Your task to perform on an android device: Turn on the flashlight Image 0: 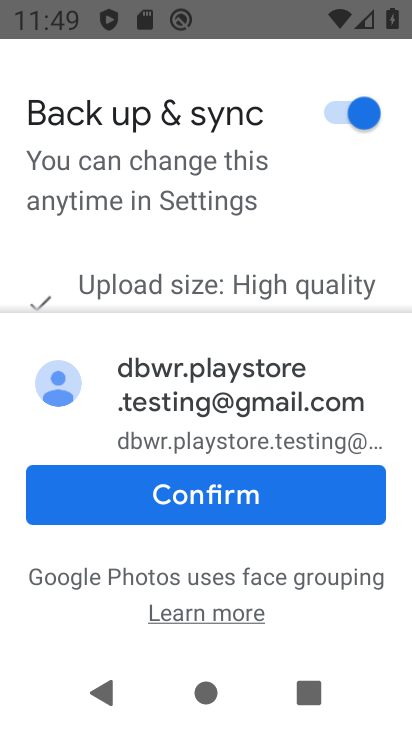
Step 0: press home button
Your task to perform on an android device: Turn on the flashlight Image 1: 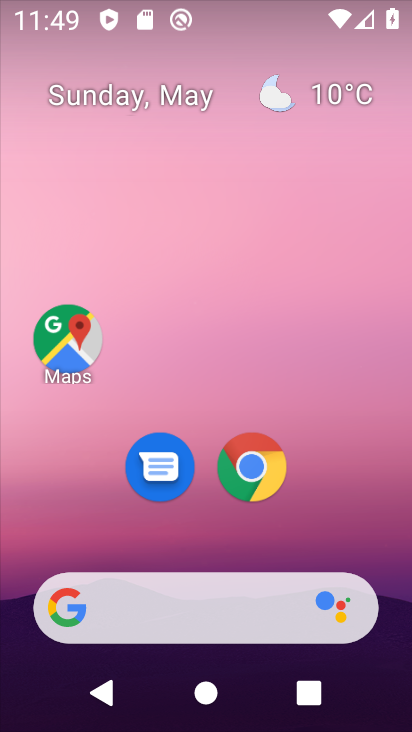
Step 1: drag from (357, 500) to (363, 141)
Your task to perform on an android device: Turn on the flashlight Image 2: 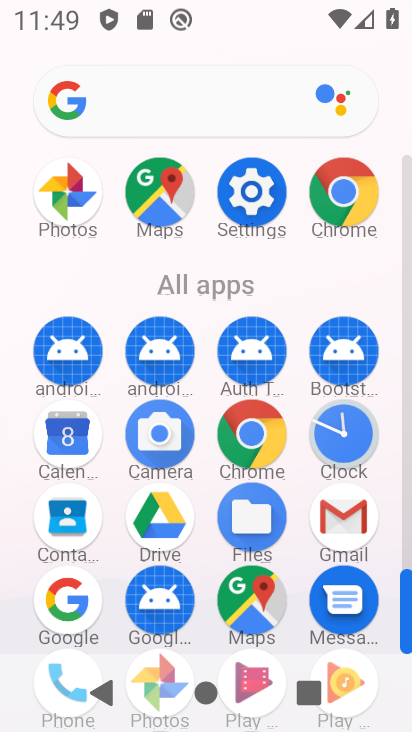
Step 2: click (259, 180)
Your task to perform on an android device: Turn on the flashlight Image 3: 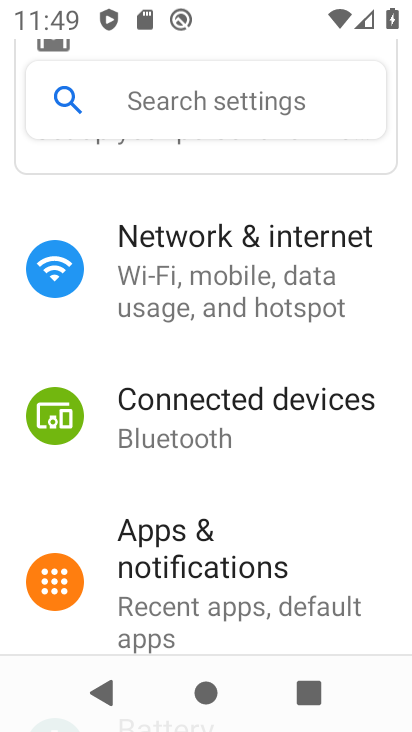
Step 3: click (234, 126)
Your task to perform on an android device: Turn on the flashlight Image 4: 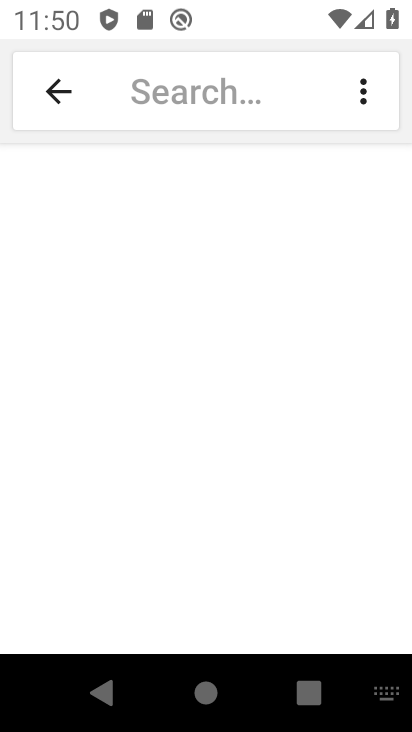
Step 4: click (172, 97)
Your task to perform on an android device: Turn on the flashlight Image 5: 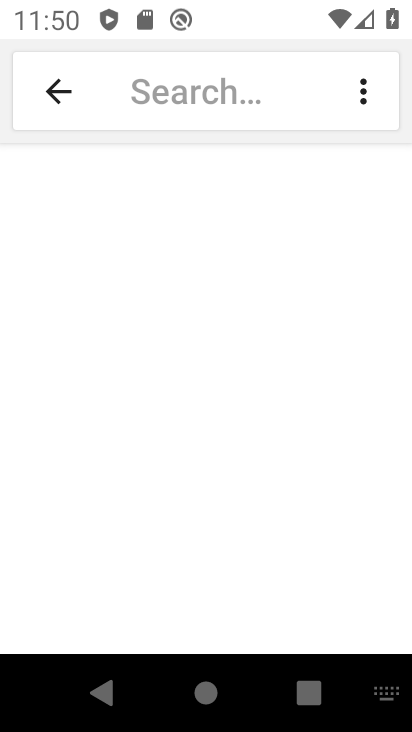
Step 5: type "flashlight"
Your task to perform on an android device: Turn on the flashlight Image 6: 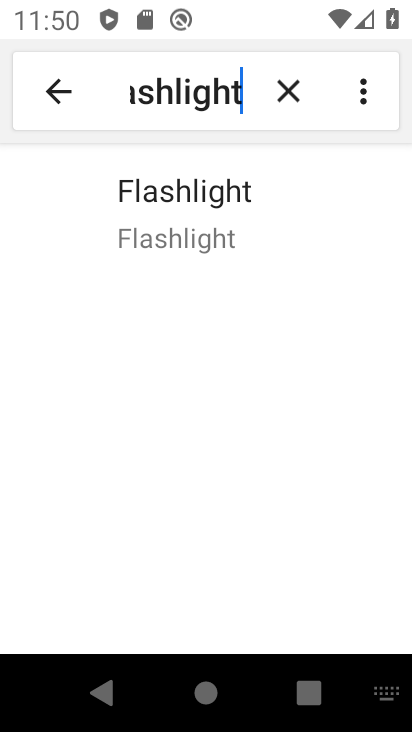
Step 6: click (198, 227)
Your task to perform on an android device: Turn on the flashlight Image 7: 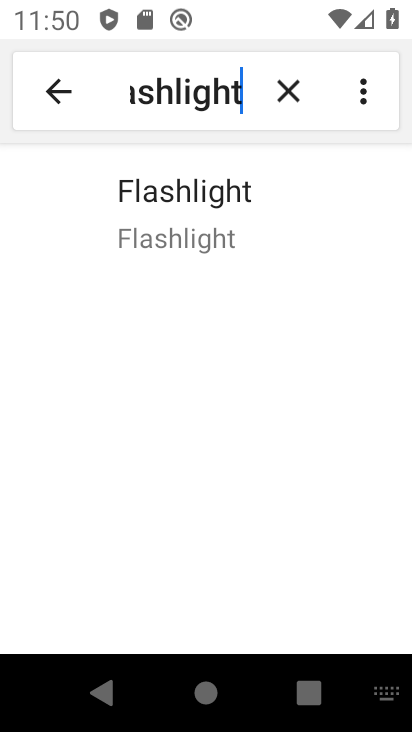
Step 7: task complete